Your task to perform on an android device: Open Wikipedia Image 0: 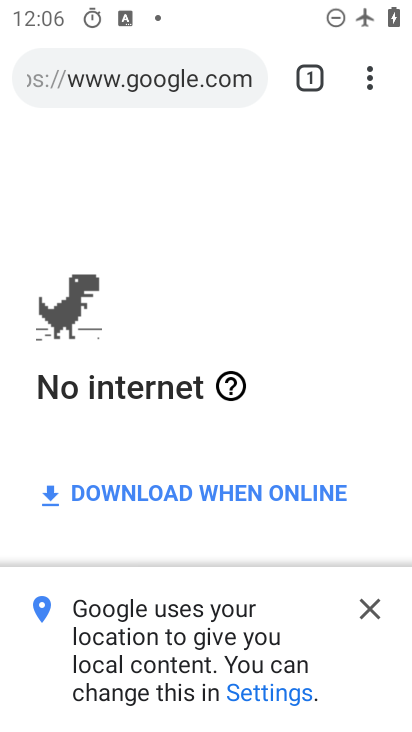
Step 0: press home button
Your task to perform on an android device: Open Wikipedia Image 1: 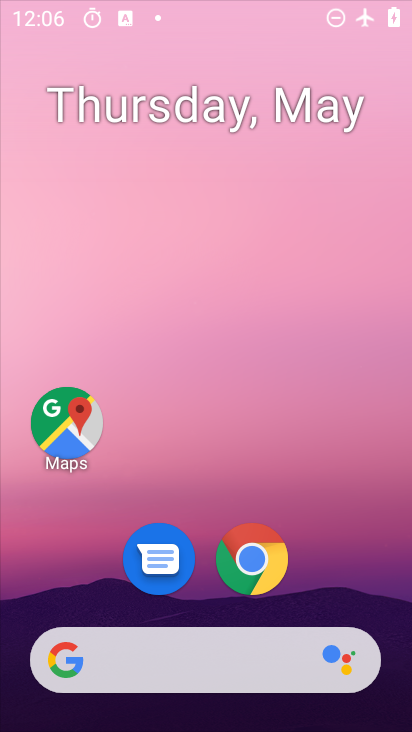
Step 1: drag from (187, 631) to (277, 134)
Your task to perform on an android device: Open Wikipedia Image 2: 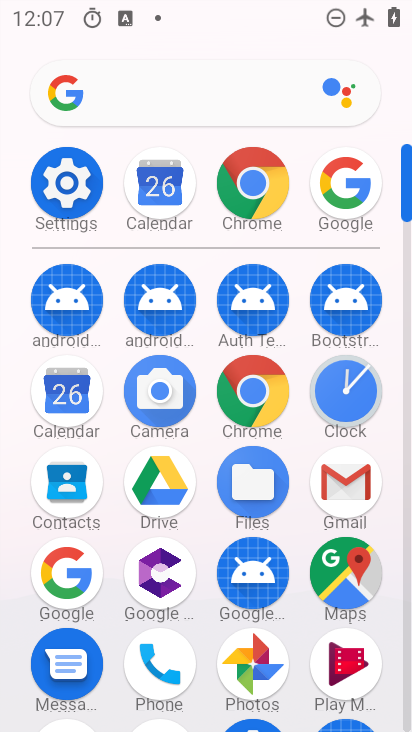
Step 2: click (251, 206)
Your task to perform on an android device: Open Wikipedia Image 3: 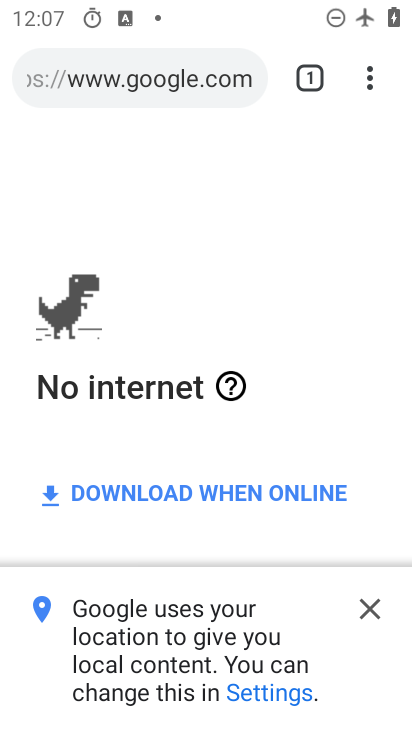
Step 3: click (218, 73)
Your task to perform on an android device: Open Wikipedia Image 4: 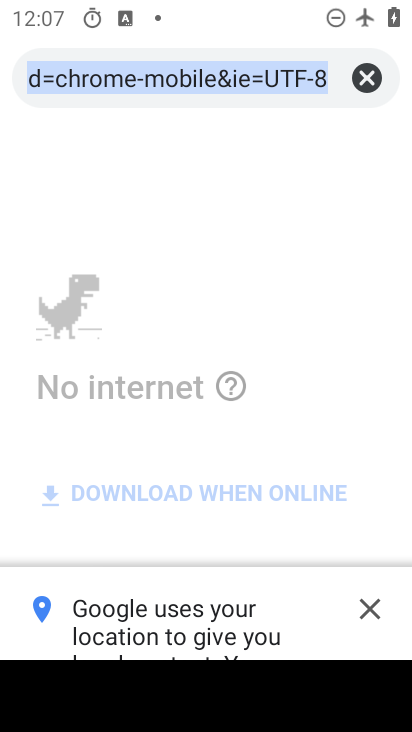
Step 4: type "wikipedia"
Your task to perform on an android device: Open Wikipedia Image 5: 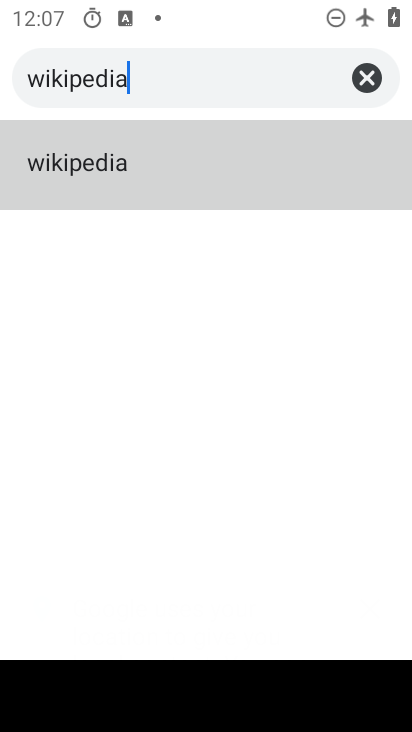
Step 5: click (176, 166)
Your task to perform on an android device: Open Wikipedia Image 6: 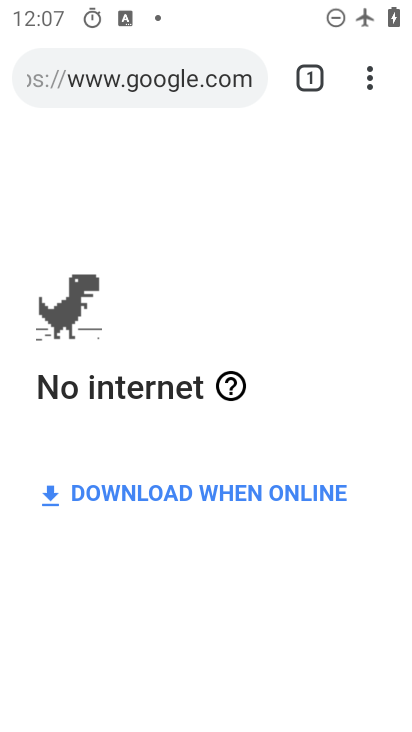
Step 6: task complete